Your task to perform on an android device: all mails in gmail Image 0: 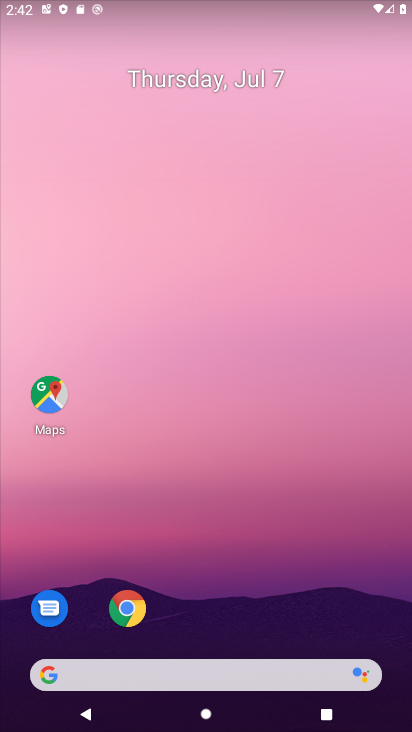
Step 0: drag from (386, 643) to (298, 105)
Your task to perform on an android device: all mails in gmail Image 1: 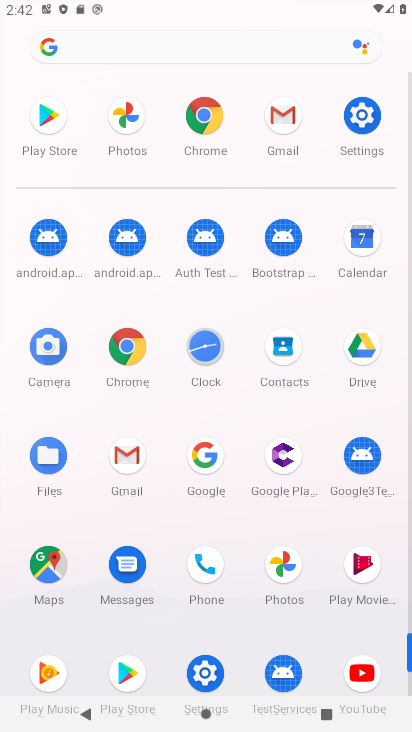
Step 1: click (124, 453)
Your task to perform on an android device: all mails in gmail Image 2: 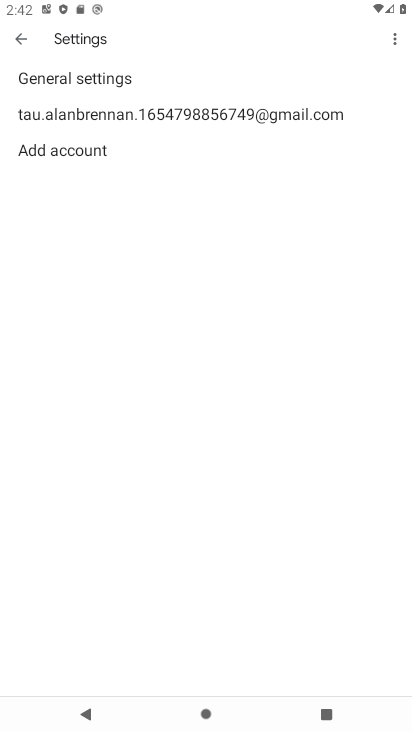
Step 2: press back button
Your task to perform on an android device: all mails in gmail Image 3: 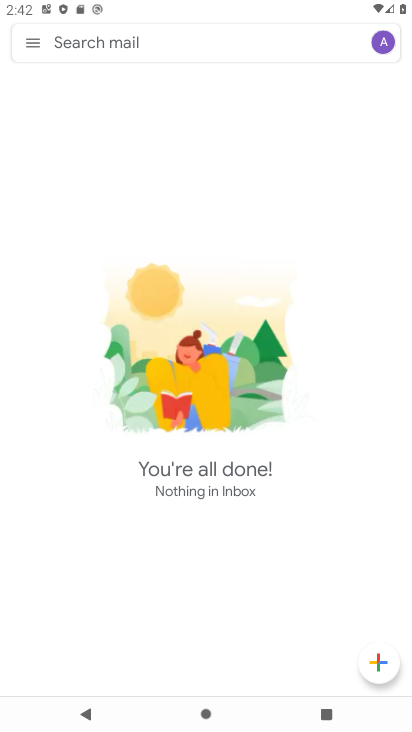
Step 3: click (28, 41)
Your task to perform on an android device: all mails in gmail Image 4: 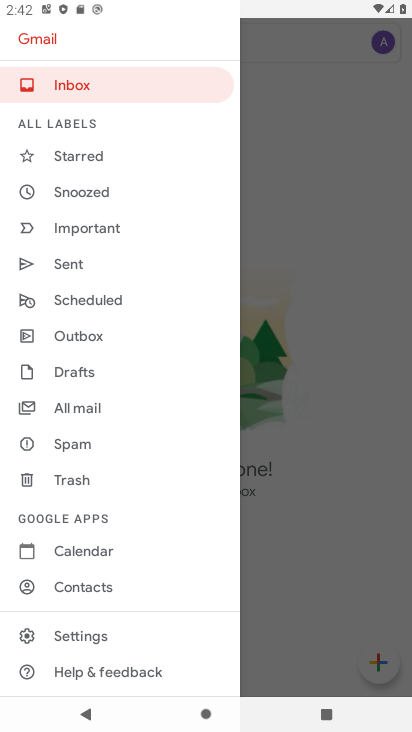
Step 4: click (80, 411)
Your task to perform on an android device: all mails in gmail Image 5: 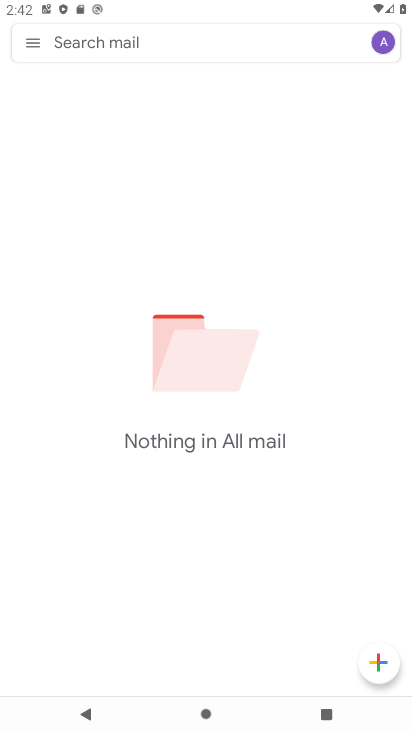
Step 5: task complete